Your task to perform on an android device: Open network settings Image 0: 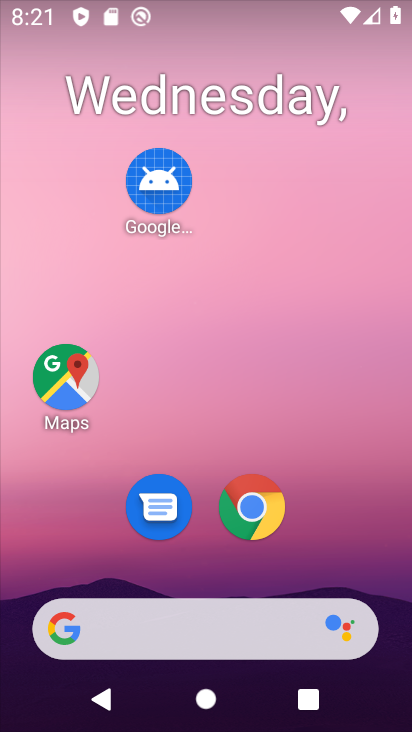
Step 0: drag from (210, 606) to (240, 19)
Your task to perform on an android device: Open network settings Image 1: 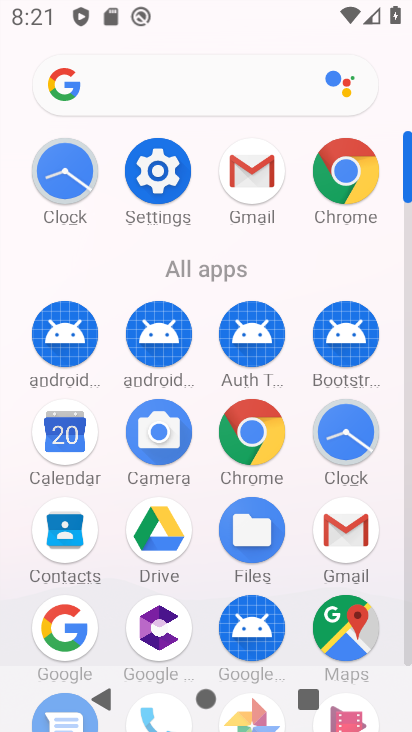
Step 1: click (153, 197)
Your task to perform on an android device: Open network settings Image 2: 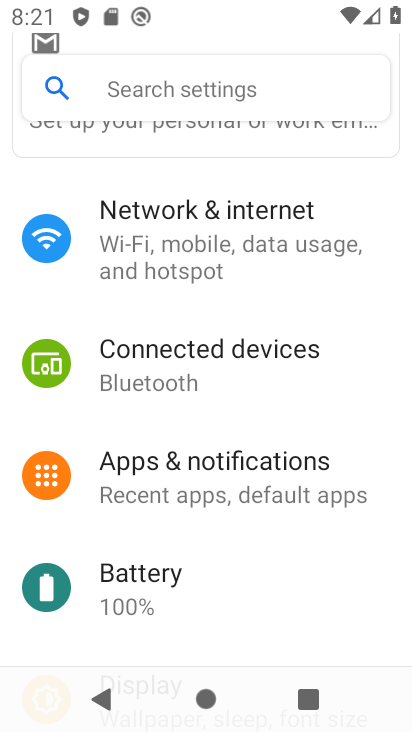
Step 2: click (194, 256)
Your task to perform on an android device: Open network settings Image 3: 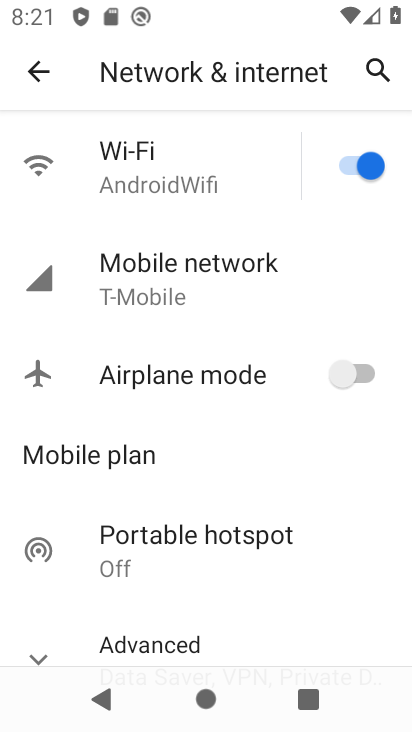
Step 3: click (125, 279)
Your task to perform on an android device: Open network settings Image 4: 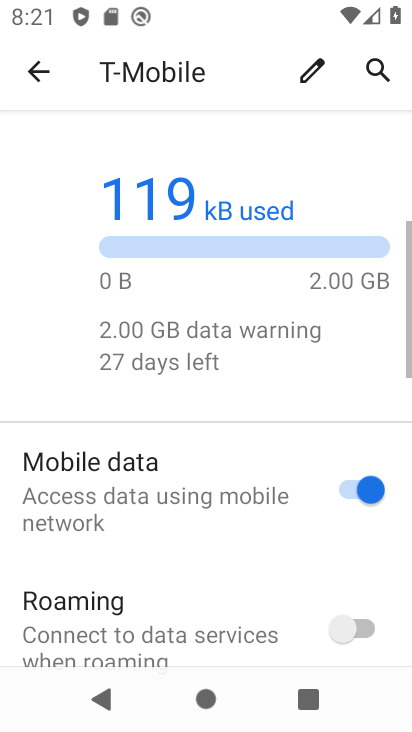
Step 4: drag from (134, 471) to (110, 1)
Your task to perform on an android device: Open network settings Image 5: 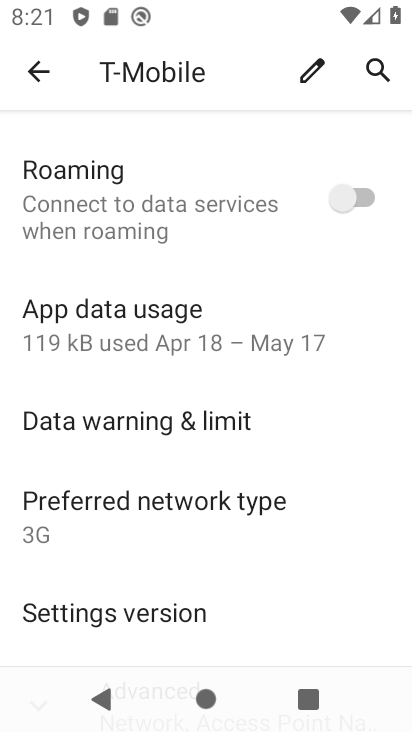
Step 5: drag from (154, 535) to (161, 65)
Your task to perform on an android device: Open network settings Image 6: 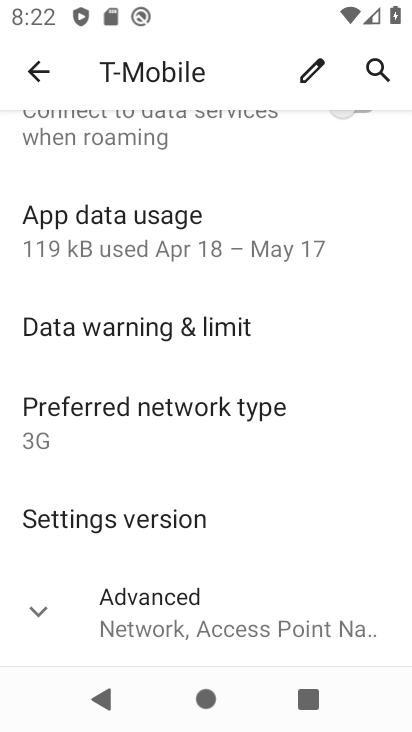
Step 6: click (178, 612)
Your task to perform on an android device: Open network settings Image 7: 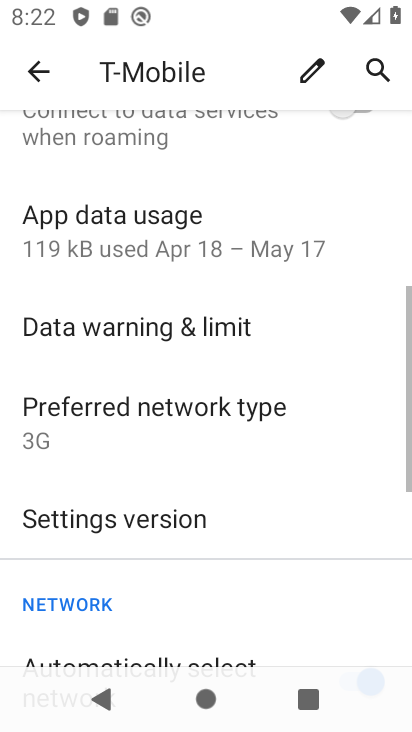
Step 7: task complete